Your task to perform on an android device: turn vacation reply on in the gmail app Image 0: 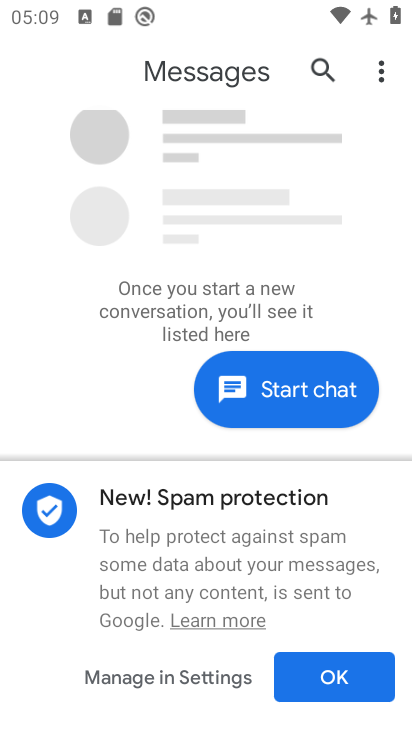
Step 0: press home button
Your task to perform on an android device: turn vacation reply on in the gmail app Image 1: 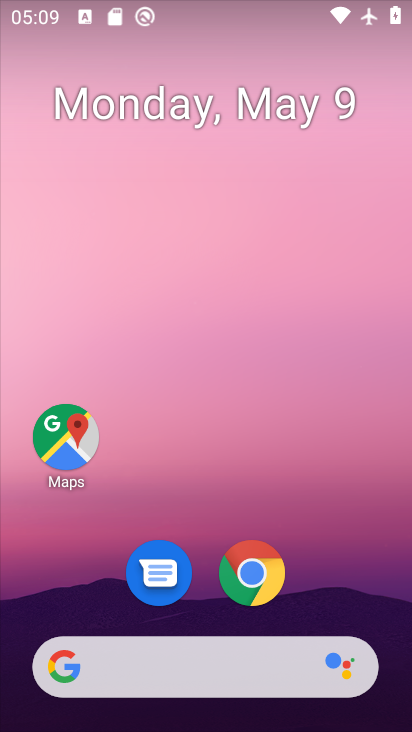
Step 1: drag from (394, 615) to (308, 19)
Your task to perform on an android device: turn vacation reply on in the gmail app Image 2: 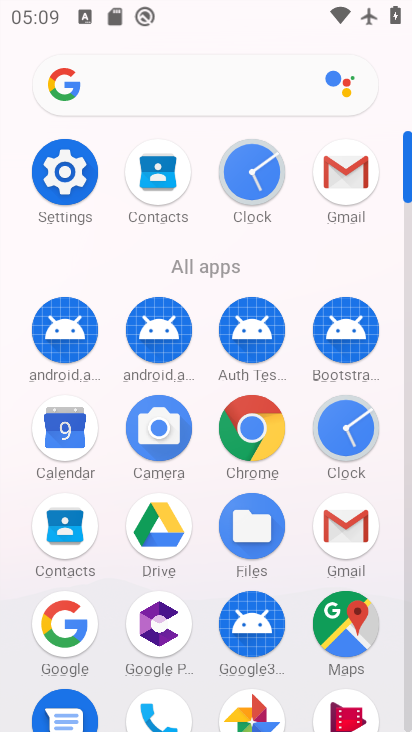
Step 2: click (346, 531)
Your task to perform on an android device: turn vacation reply on in the gmail app Image 3: 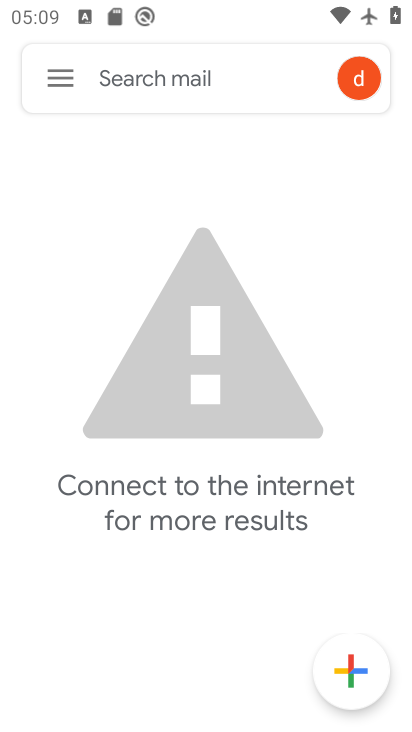
Step 3: click (63, 77)
Your task to perform on an android device: turn vacation reply on in the gmail app Image 4: 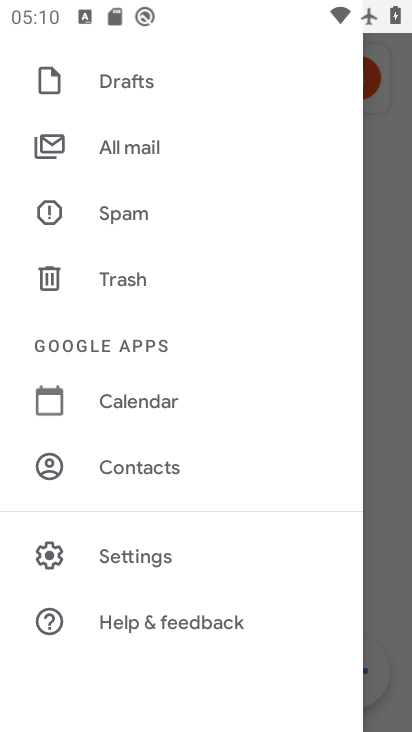
Step 4: click (142, 553)
Your task to perform on an android device: turn vacation reply on in the gmail app Image 5: 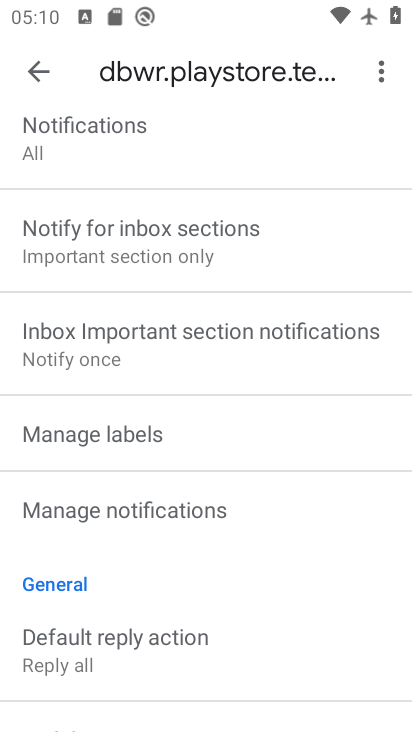
Step 5: task complete